Your task to perform on an android device: Search for seafood restaurants on Google Maps Image 0: 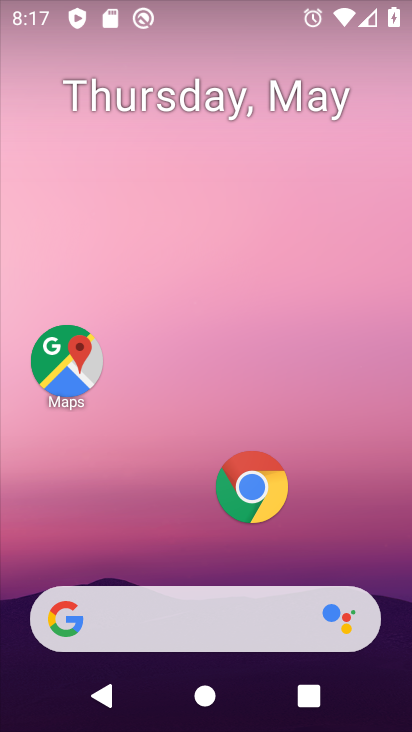
Step 0: drag from (377, 665) to (136, 111)
Your task to perform on an android device: Search for seafood restaurants on Google Maps Image 1: 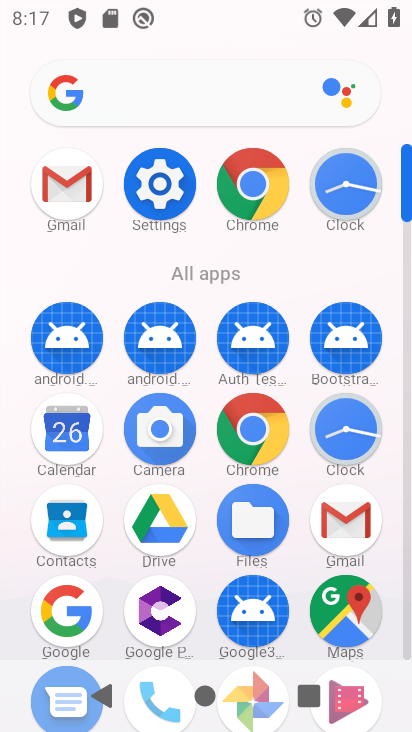
Step 1: click (353, 610)
Your task to perform on an android device: Search for seafood restaurants on Google Maps Image 2: 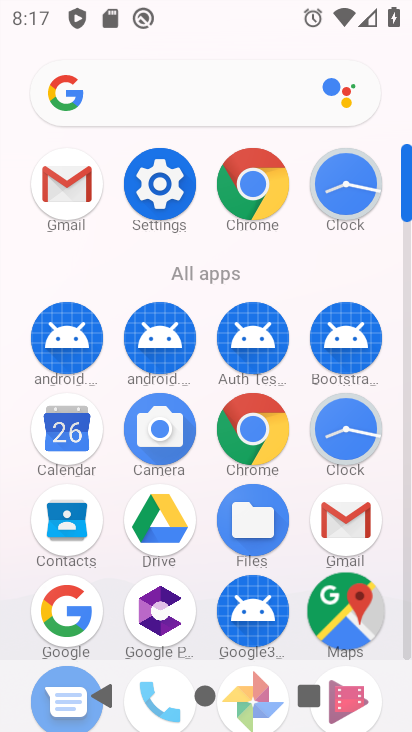
Step 2: click (352, 604)
Your task to perform on an android device: Search for seafood restaurants on Google Maps Image 3: 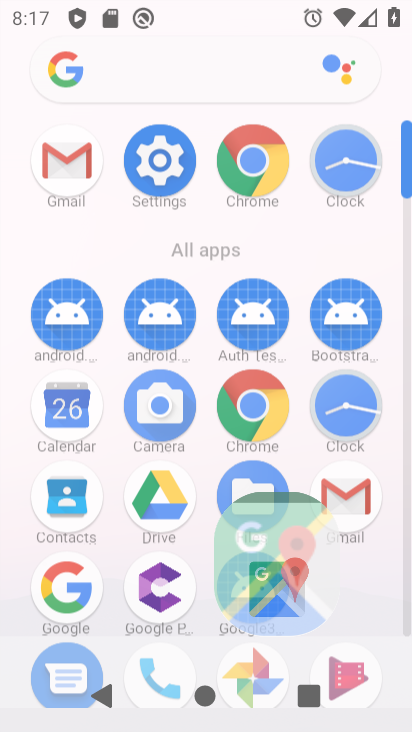
Step 3: click (352, 604)
Your task to perform on an android device: Search for seafood restaurants on Google Maps Image 4: 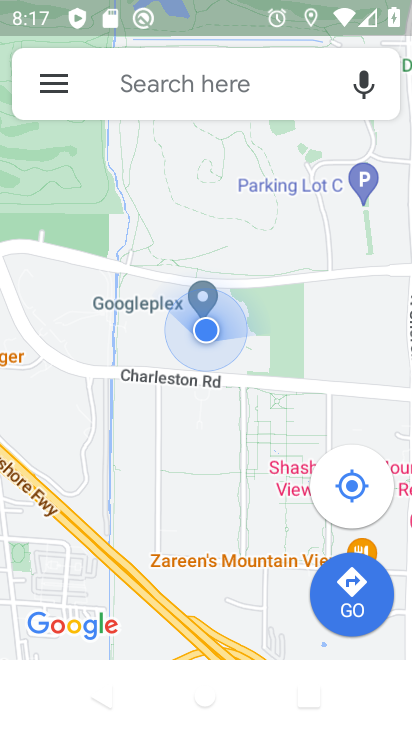
Step 4: click (134, 87)
Your task to perform on an android device: Search for seafood restaurants on Google Maps Image 5: 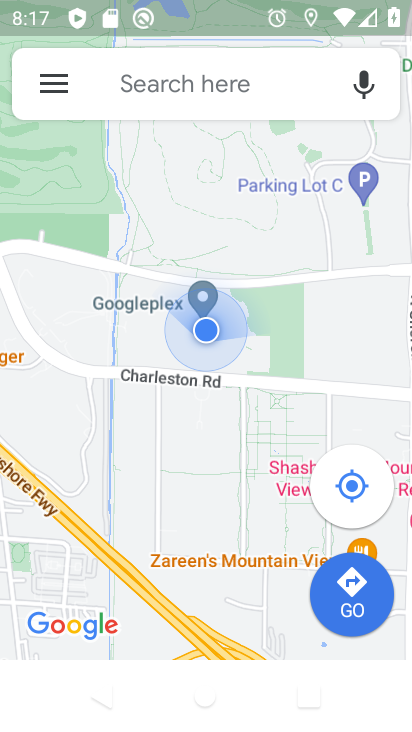
Step 5: click (134, 87)
Your task to perform on an android device: Search for seafood restaurants on Google Maps Image 6: 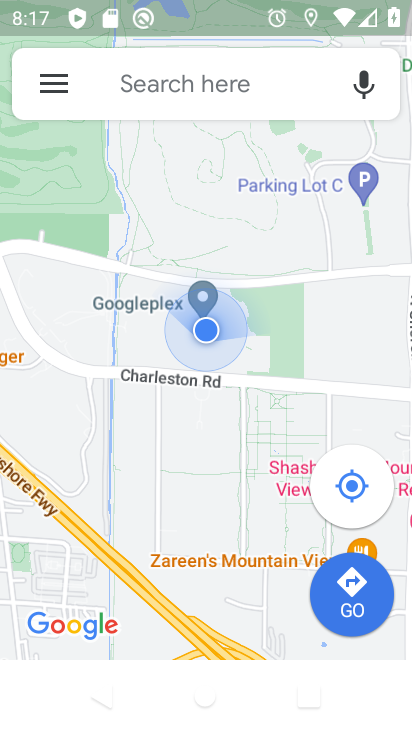
Step 6: click (134, 87)
Your task to perform on an android device: Search for seafood restaurants on Google Maps Image 7: 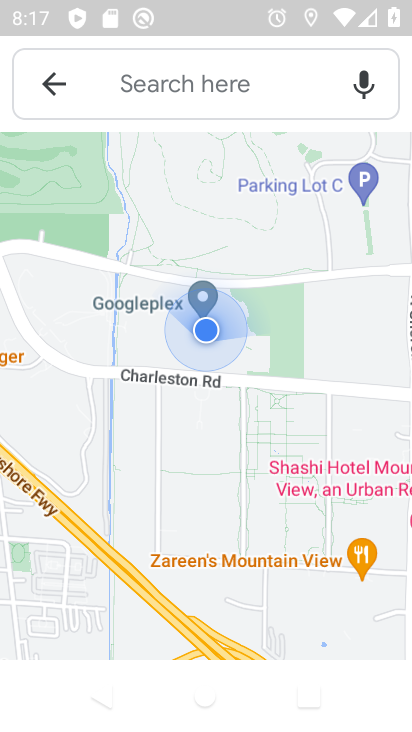
Step 7: click (137, 90)
Your task to perform on an android device: Search for seafood restaurants on Google Maps Image 8: 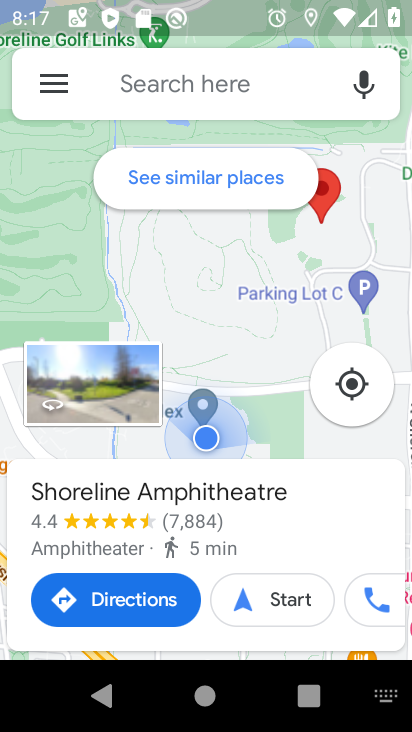
Step 8: type "seafood restaurants"
Your task to perform on an android device: Search for seafood restaurants on Google Maps Image 9: 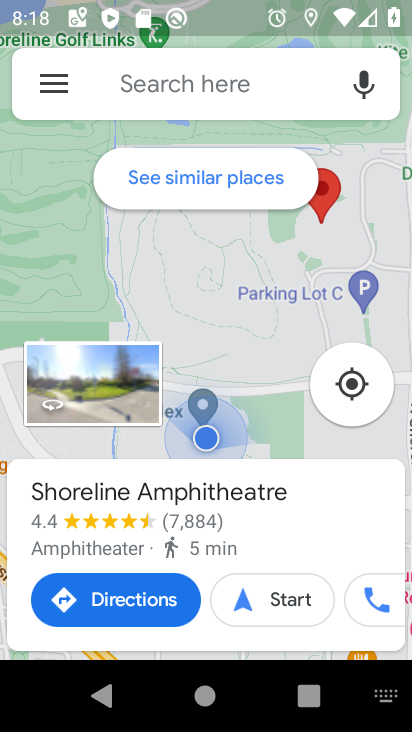
Step 9: click (128, 98)
Your task to perform on an android device: Search for seafood restaurants on Google Maps Image 10: 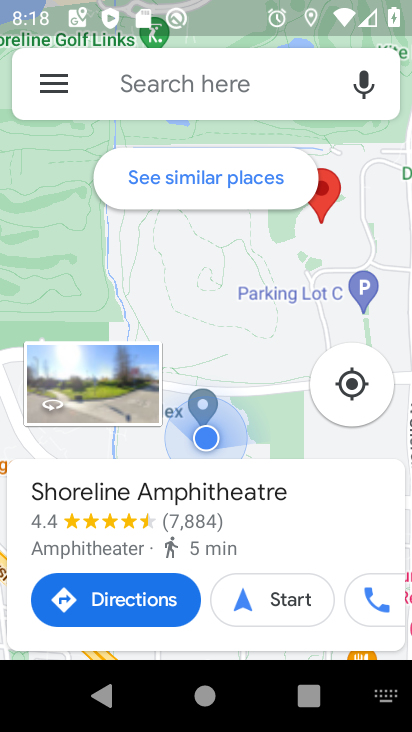
Step 10: click (129, 95)
Your task to perform on an android device: Search for seafood restaurants on Google Maps Image 11: 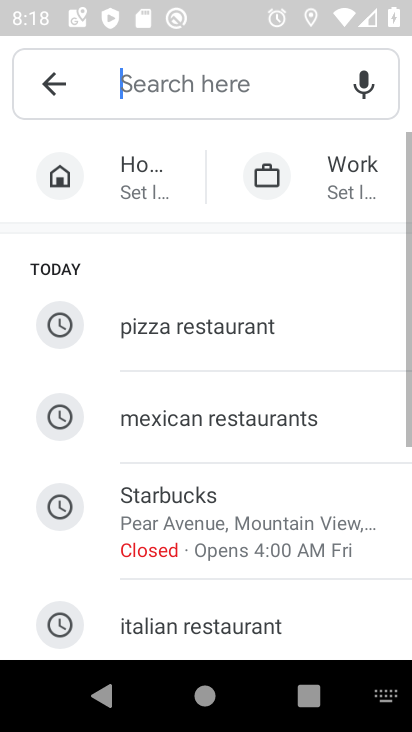
Step 11: click (130, 92)
Your task to perform on an android device: Search for seafood restaurants on Google Maps Image 12: 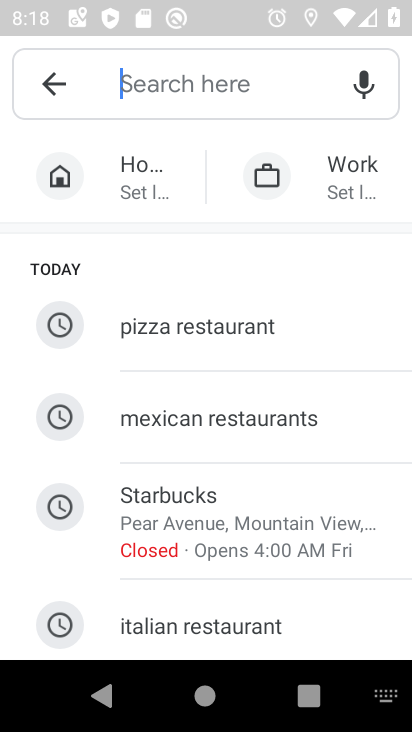
Step 12: type "seafood  restaurants"
Your task to perform on an android device: Search for seafood restaurants on Google Maps Image 13: 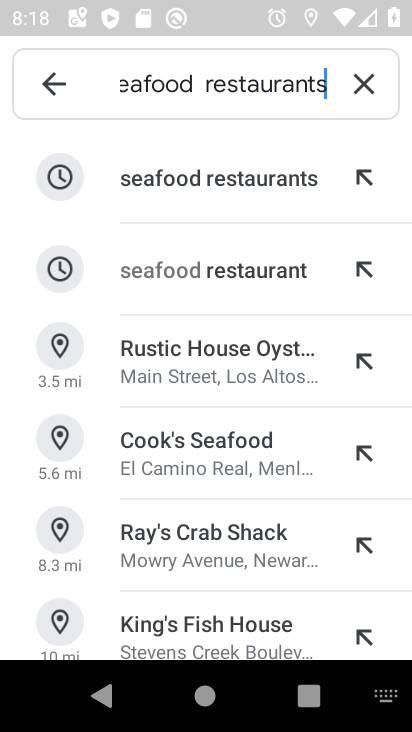
Step 13: click (236, 198)
Your task to perform on an android device: Search for seafood restaurants on Google Maps Image 14: 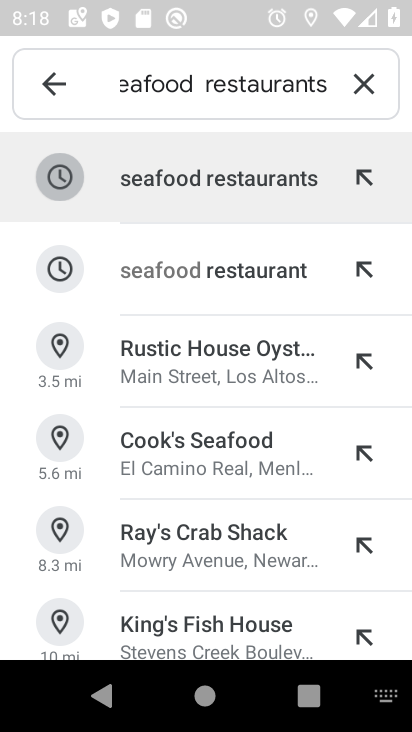
Step 14: click (243, 191)
Your task to perform on an android device: Search for seafood restaurants on Google Maps Image 15: 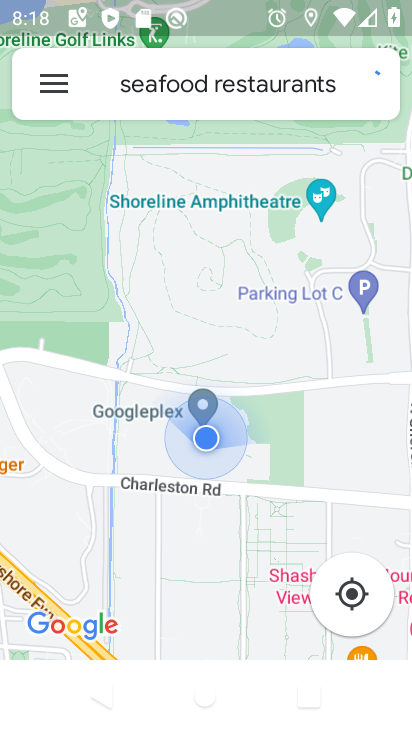
Step 15: task complete